Your task to perform on an android device: open app "NewsBreak: Local News & Alerts" (install if not already installed) Image 0: 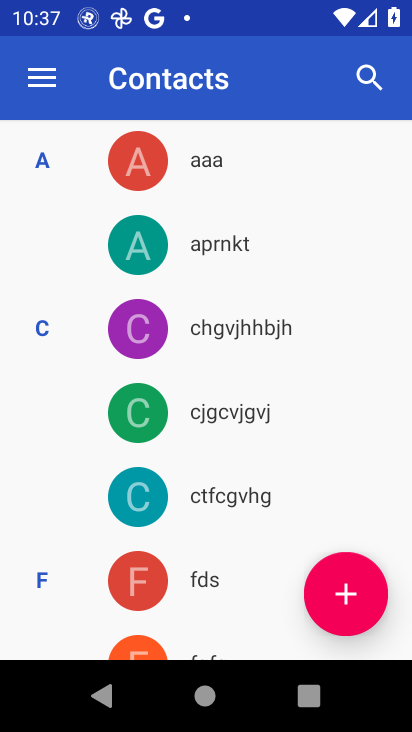
Step 0: press back button
Your task to perform on an android device: open app "NewsBreak: Local News & Alerts" (install if not already installed) Image 1: 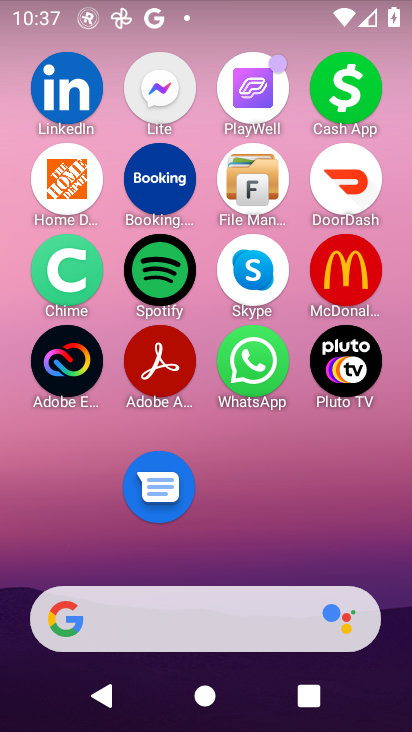
Step 1: drag from (264, 645) to (287, 17)
Your task to perform on an android device: open app "NewsBreak: Local News & Alerts" (install if not already installed) Image 2: 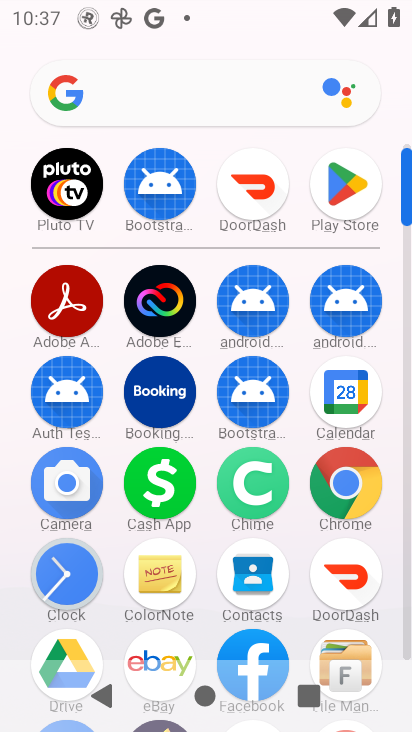
Step 2: click (348, 178)
Your task to perform on an android device: open app "NewsBreak: Local News & Alerts" (install if not already installed) Image 3: 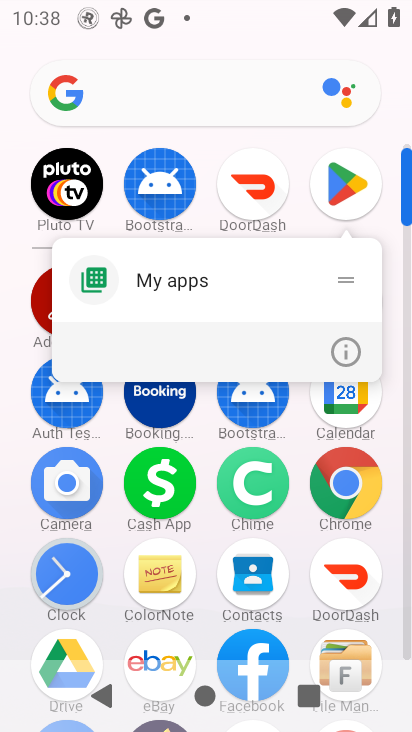
Step 3: click (350, 180)
Your task to perform on an android device: open app "NewsBreak: Local News & Alerts" (install if not already installed) Image 4: 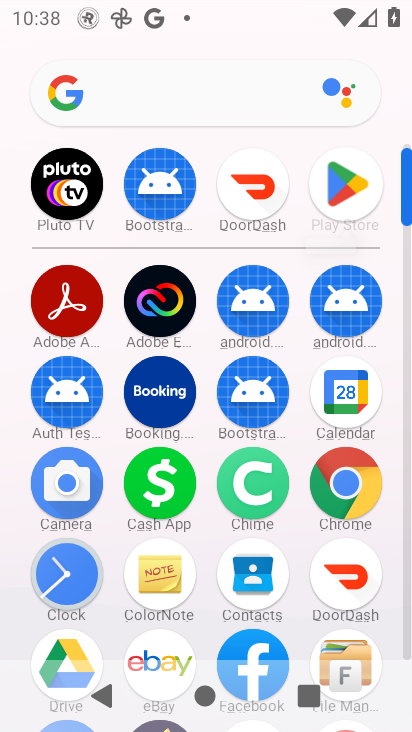
Step 4: click (350, 180)
Your task to perform on an android device: open app "NewsBreak: Local News & Alerts" (install if not already installed) Image 5: 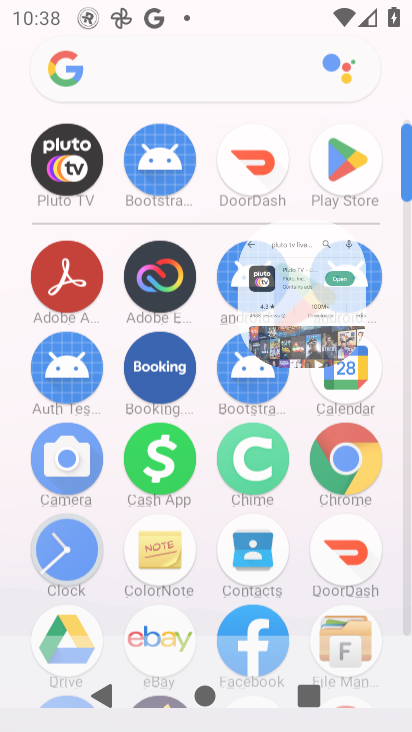
Step 5: click (350, 180)
Your task to perform on an android device: open app "NewsBreak: Local News & Alerts" (install if not already installed) Image 6: 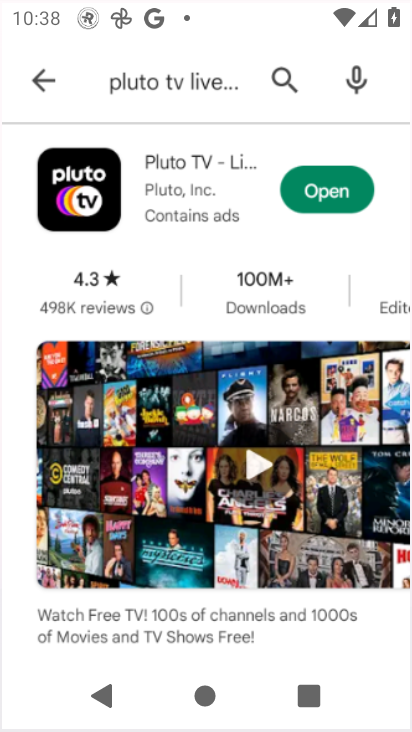
Step 6: click (350, 180)
Your task to perform on an android device: open app "NewsBreak: Local News & Alerts" (install if not already installed) Image 7: 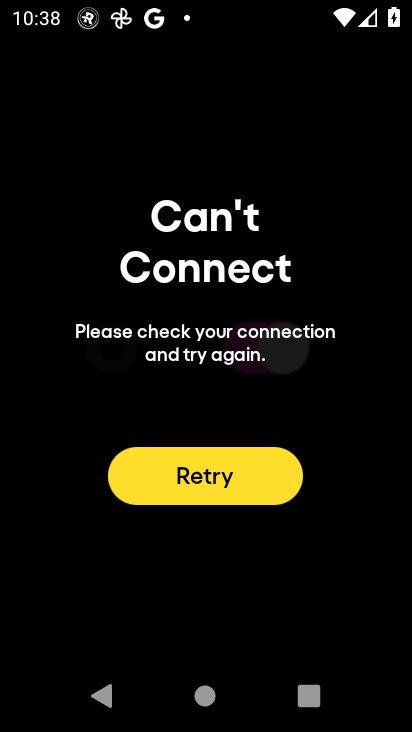
Step 7: press back button
Your task to perform on an android device: open app "NewsBreak: Local News & Alerts" (install if not already installed) Image 8: 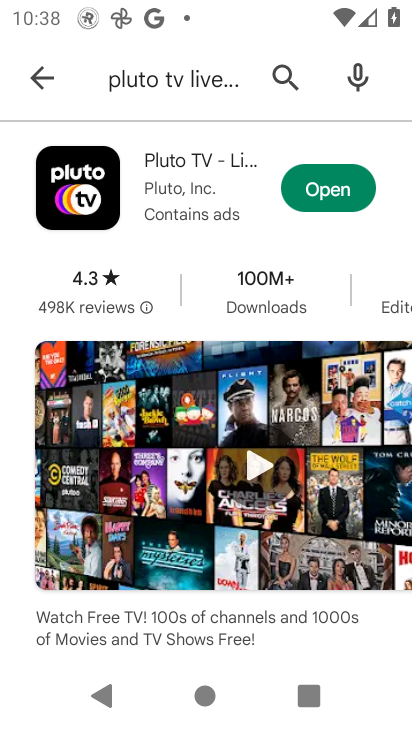
Step 8: click (36, 75)
Your task to perform on an android device: open app "NewsBreak: Local News & Alerts" (install if not already installed) Image 9: 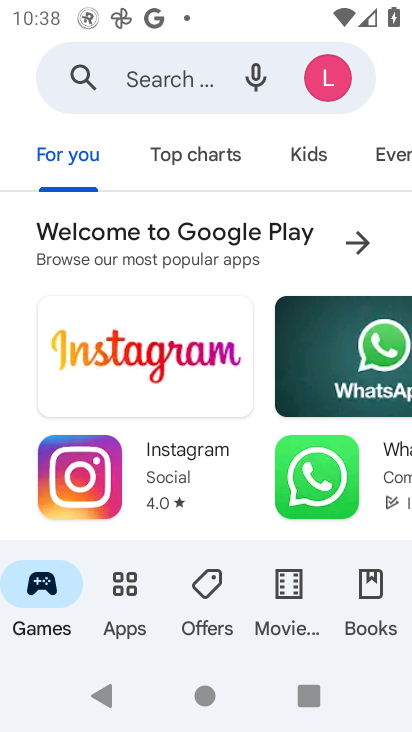
Step 9: click (131, 76)
Your task to perform on an android device: open app "NewsBreak: Local News & Alerts" (install if not already installed) Image 10: 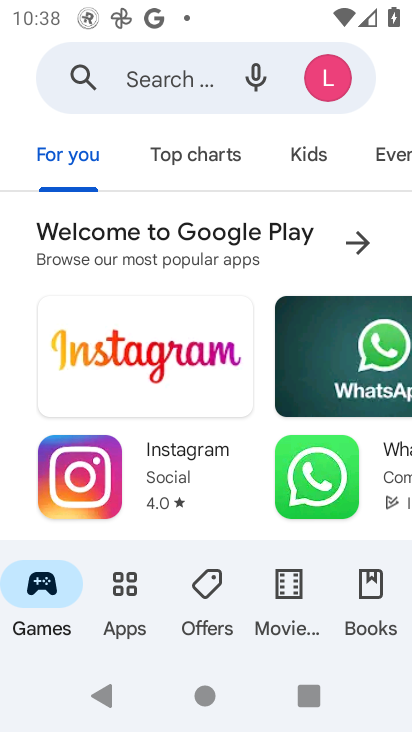
Step 10: click (130, 76)
Your task to perform on an android device: open app "NewsBreak: Local News & Alerts" (install if not already installed) Image 11: 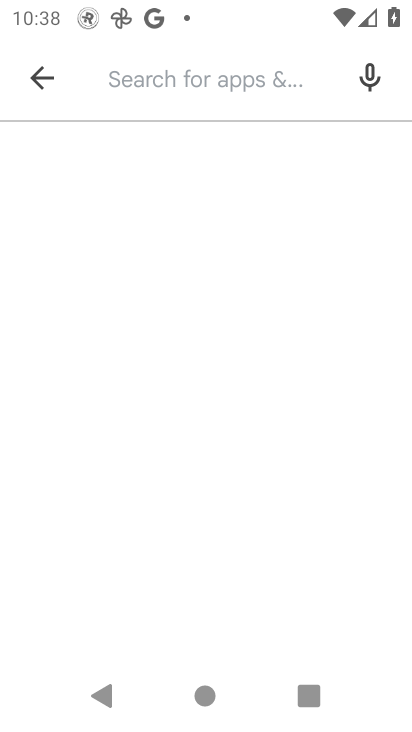
Step 11: click (130, 76)
Your task to perform on an android device: open app "NewsBreak: Local News & Alerts" (install if not already installed) Image 12: 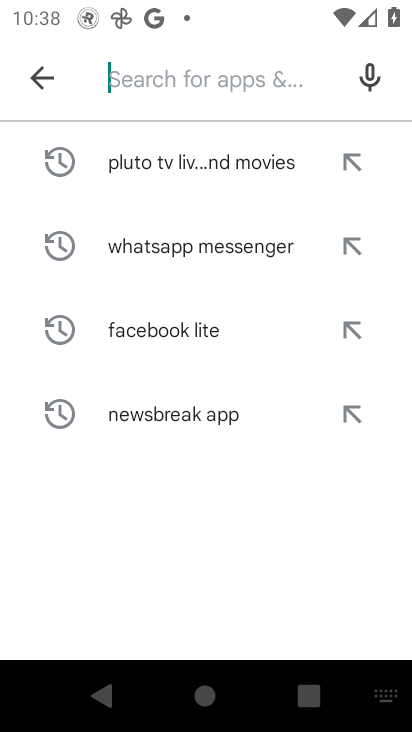
Step 12: type "News Break : Local News & Alerts"
Your task to perform on an android device: open app "NewsBreak: Local News & Alerts" (install if not already installed) Image 13: 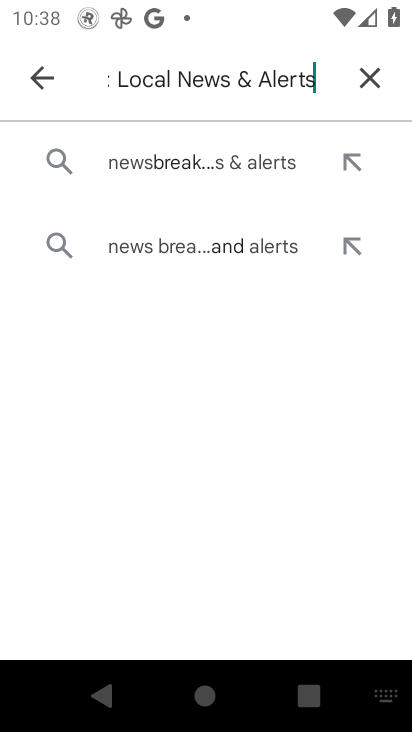
Step 13: click (257, 165)
Your task to perform on an android device: open app "NewsBreak: Local News & Alerts" (install if not already installed) Image 14: 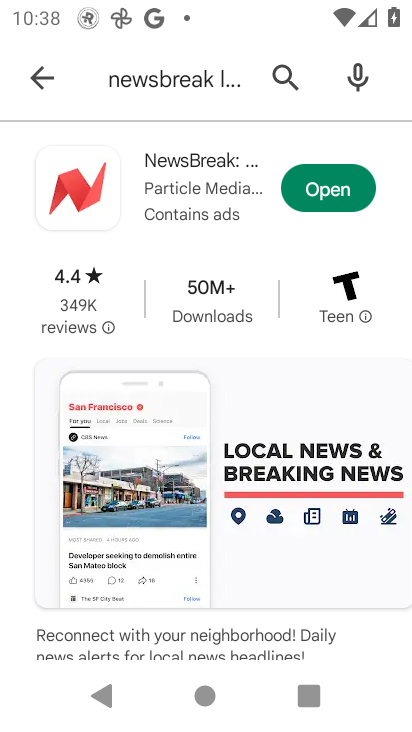
Step 14: click (320, 206)
Your task to perform on an android device: open app "NewsBreak: Local News & Alerts" (install if not already installed) Image 15: 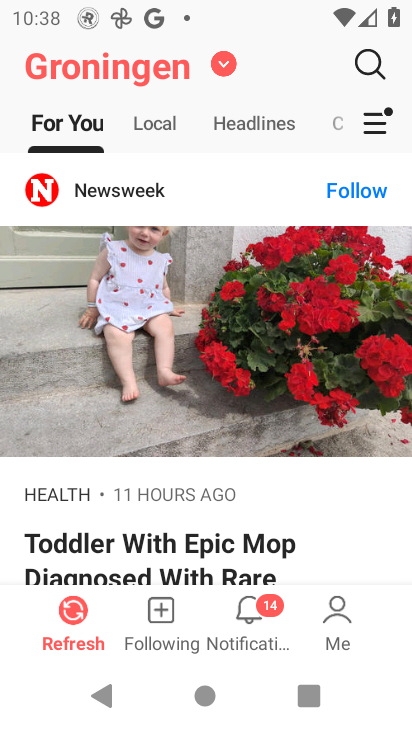
Step 15: task complete